Your task to perform on an android device: Open Google Chrome and click the shortcut for Amazon.com Image 0: 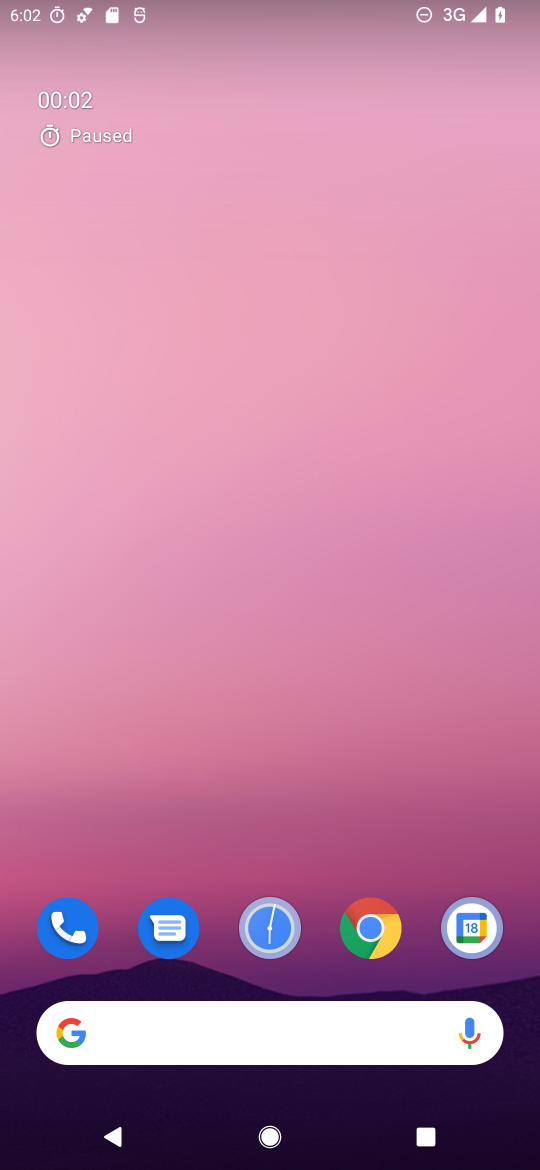
Step 0: drag from (341, 826) to (505, 19)
Your task to perform on an android device: Open Google Chrome and click the shortcut for Amazon.com Image 1: 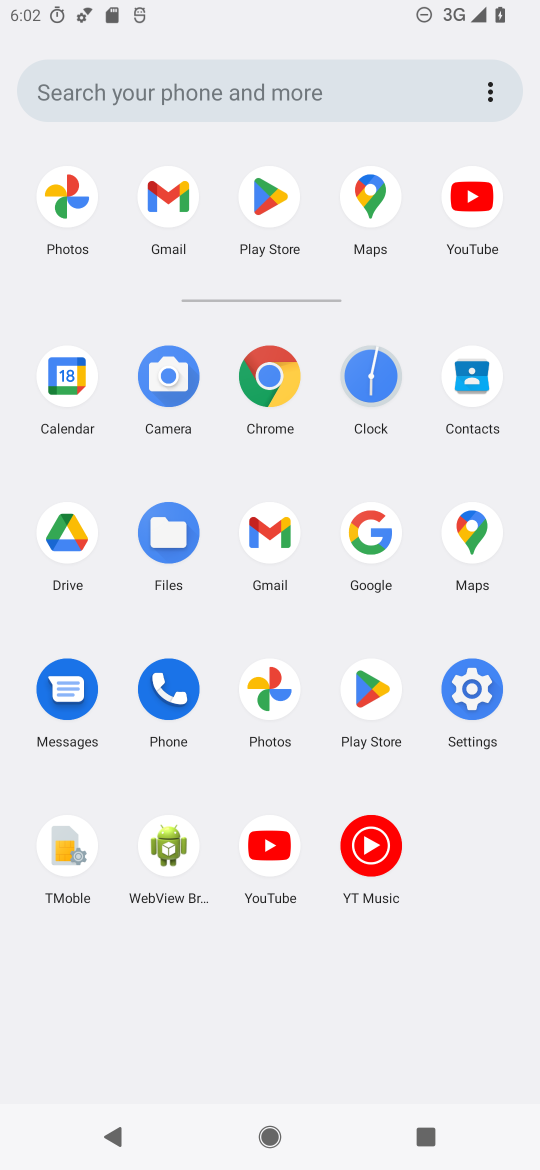
Step 1: click (267, 371)
Your task to perform on an android device: Open Google Chrome and click the shortcut for Amazon.com Image 2: 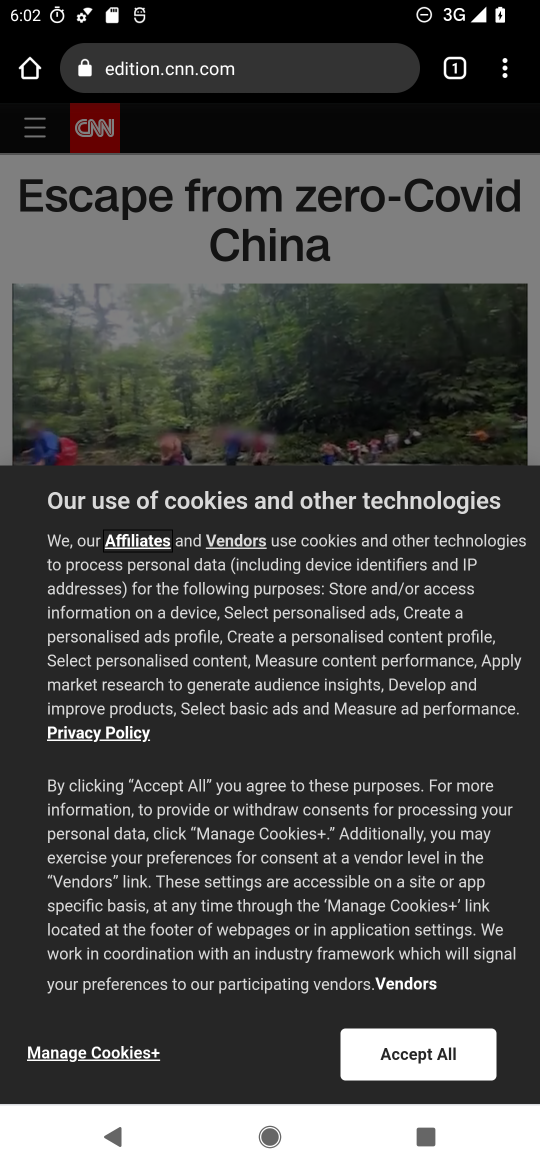
Step 2: drag from (495, 76) to (319, 199)
Your task to perform on an android device: Open Google Chrome and click the shortcut for Amazon.com Image 3: 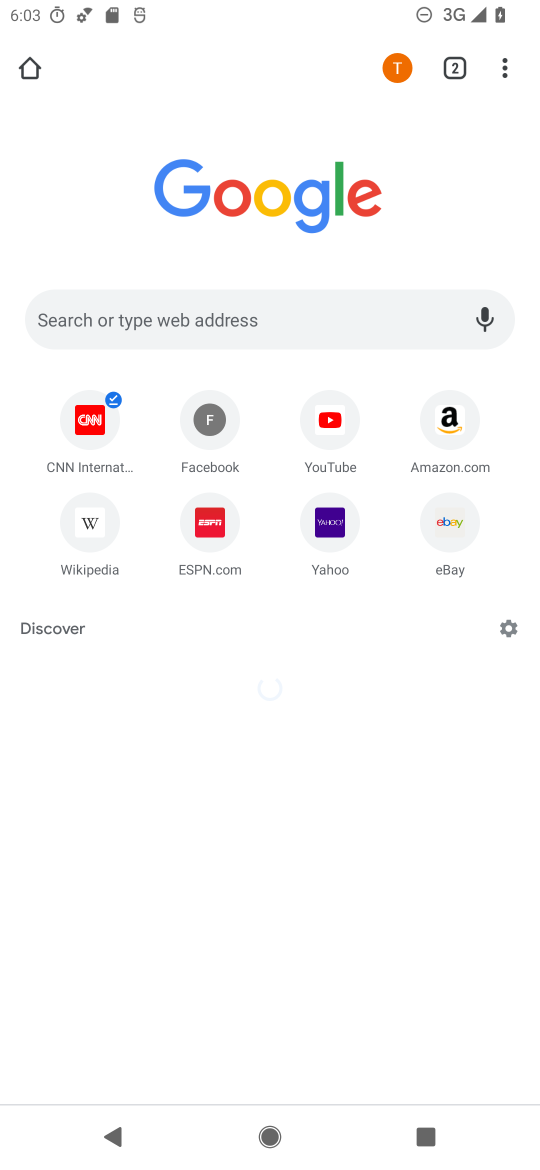
Step 3: click (434, 435)
Your task to perform on an android device: Open Google Chrome and click the shortcut for Amazon.com Image 4: 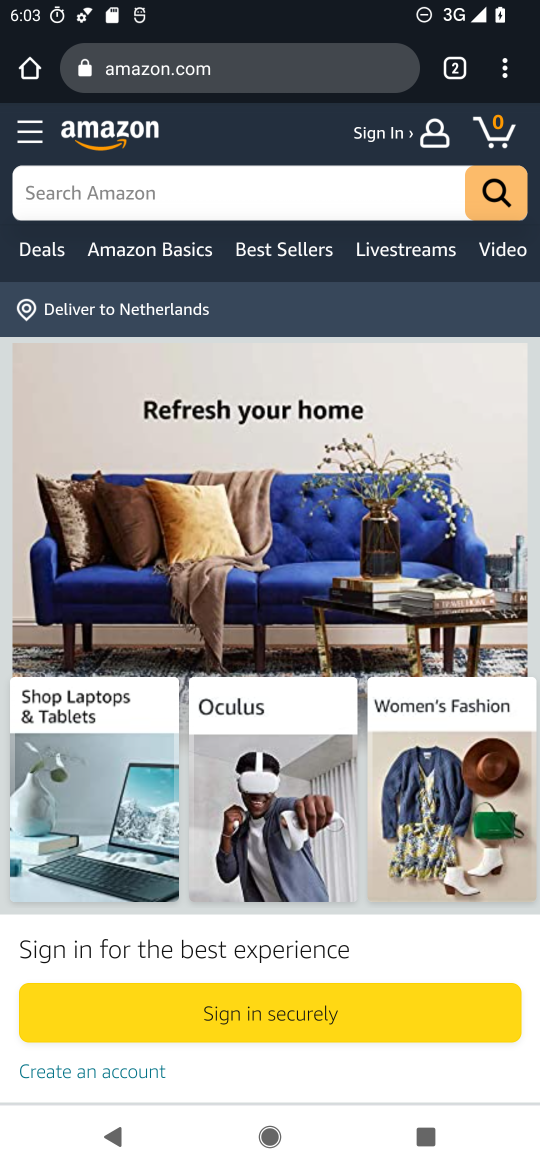
Step 4: task complete